Your task to perform on an android device: Search for "sony triple a" on target.com, select the first entry, and add it to the cart. Image 0: 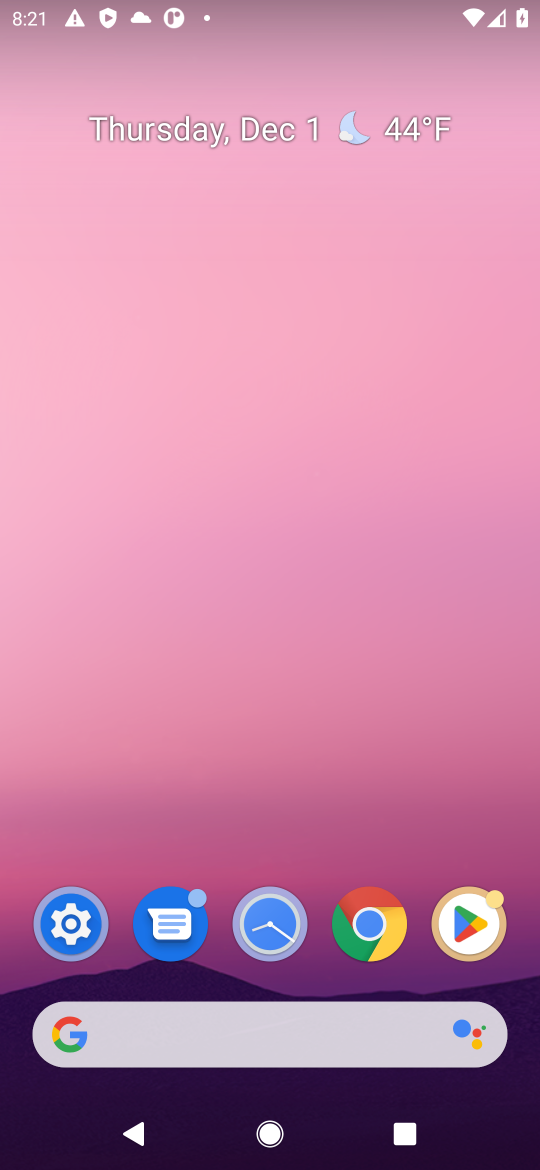
Step 0: click (339, 1019)
Your task to perform on an android device: Search for "sony triple a" on target.com, select the first entry, and add it to the cart. Image 1: 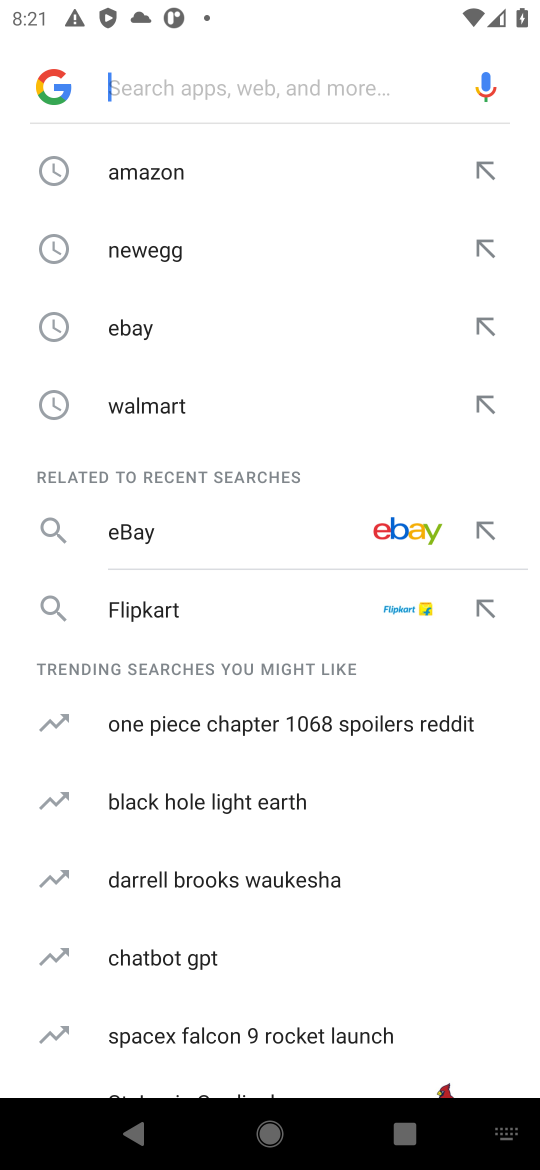
Step 1: type "target"
Your task to perform on an android device: Search for "sony triple a" on target.com, select the first entry, and add it to the cart. Image 2: 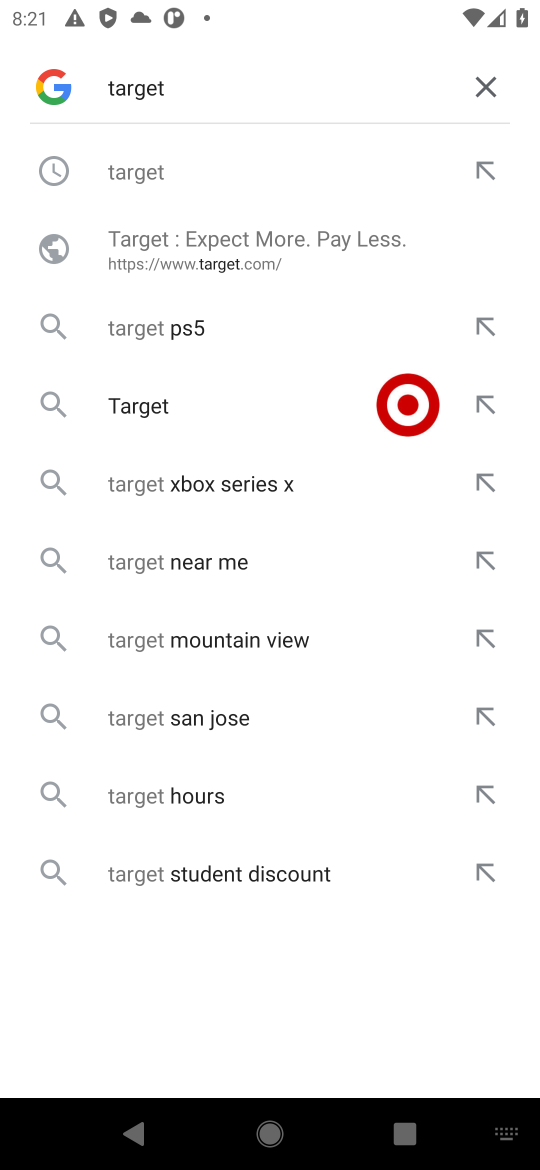
Step 2: click (252, 390)
Your task to perform on an android device: Search for "sony triple a" on target.com, select the first entry, and add it to the cart. Image 3: 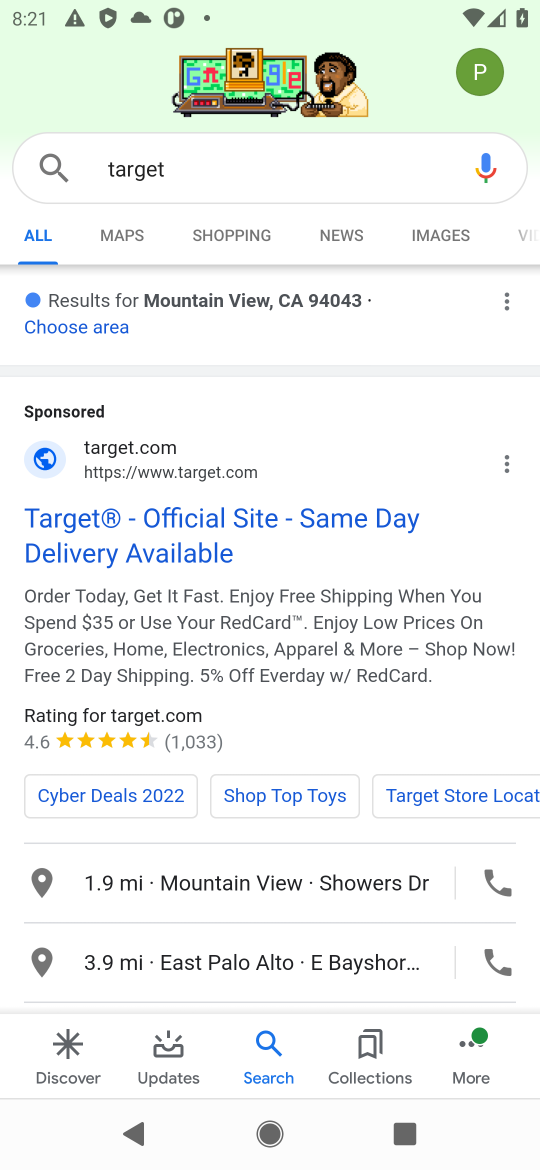
Step 3: click (141, 553)
Your task to perform on an android device: Search for "sony triple a" on target.com, select the first entry, and add it to the cart. Image 4: 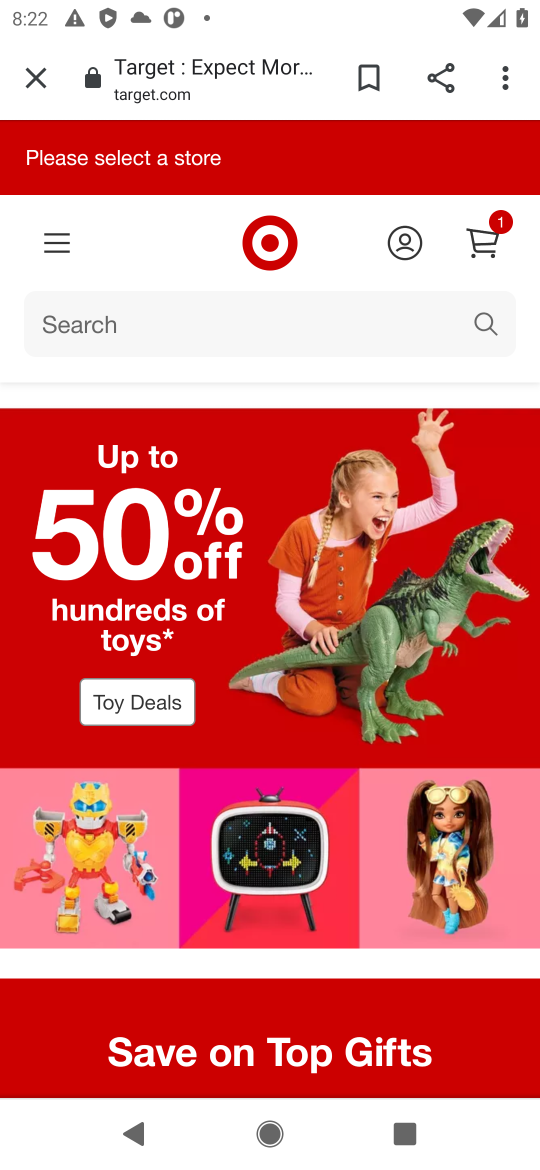
Step 4: click (212, 293)
Your task to perform on an android device: Search for "sony triple a" on target.com, select the first entry, and add it to the cart. Image 5: 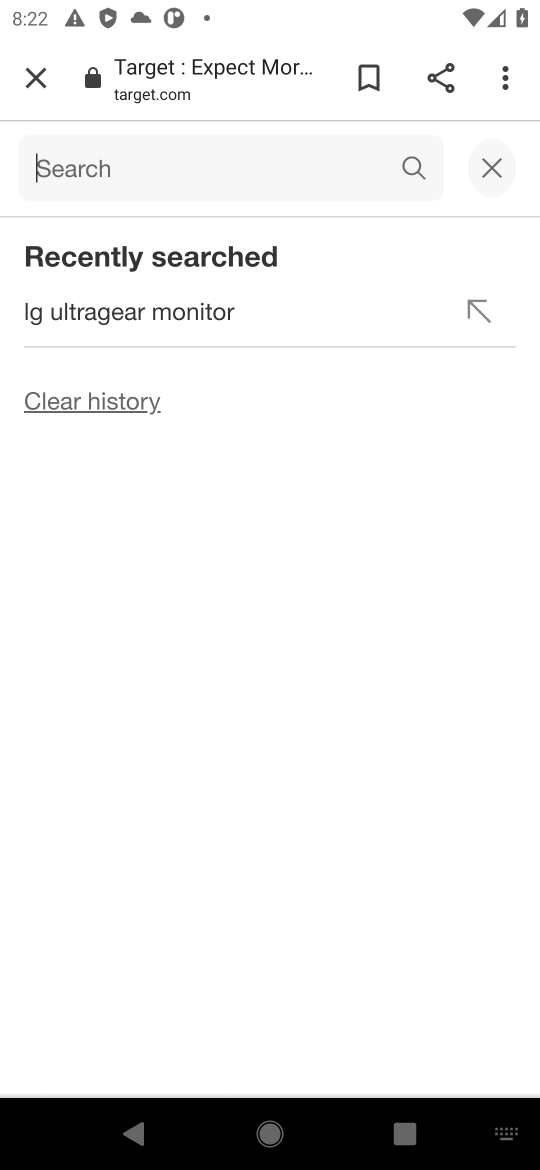
Step 5: type "sony tiple a"
Your task to perform on an android device: Search for "sony triple a" on target.com, select the first entry, and add it to the cart. Image 6: 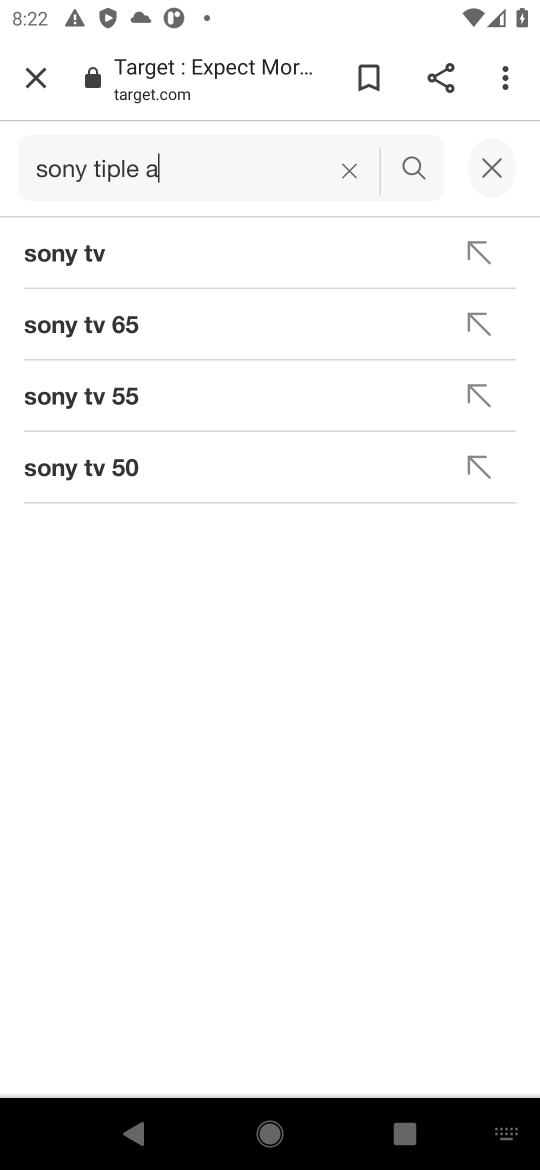
Step 6: click (419, 172)
Your task to perform on an android device: Search for "sony triple a" on target.com, select the first entry, and add it to the cart. Image 7: 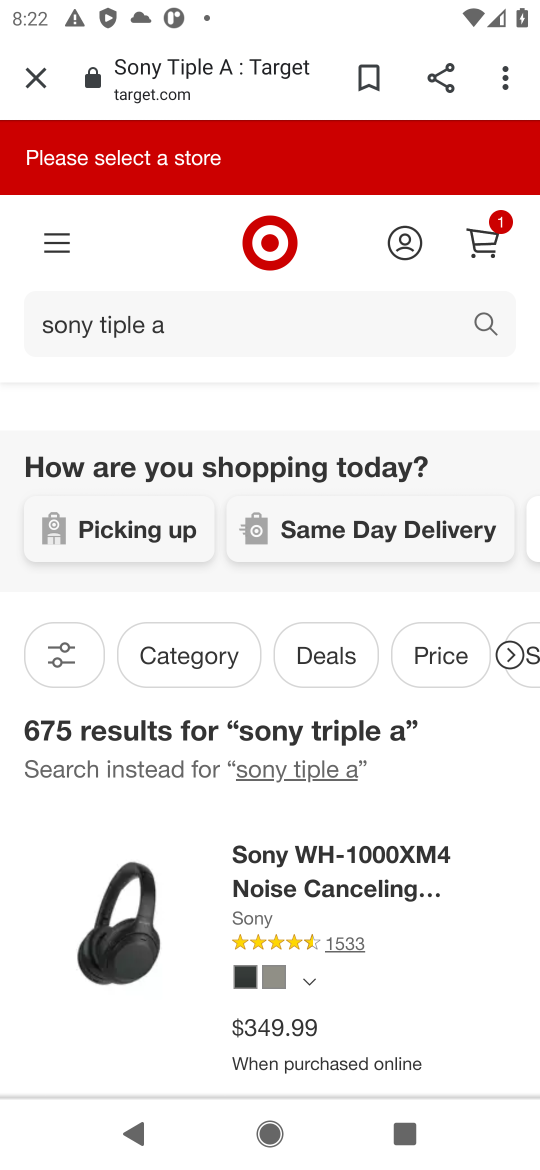
Step 7: drag from (272, 761) to (231, 360)
Your task to perform on an android device: Search for "sony triple a" on target.com, select the first entry, and add it to the cart. Image 8: 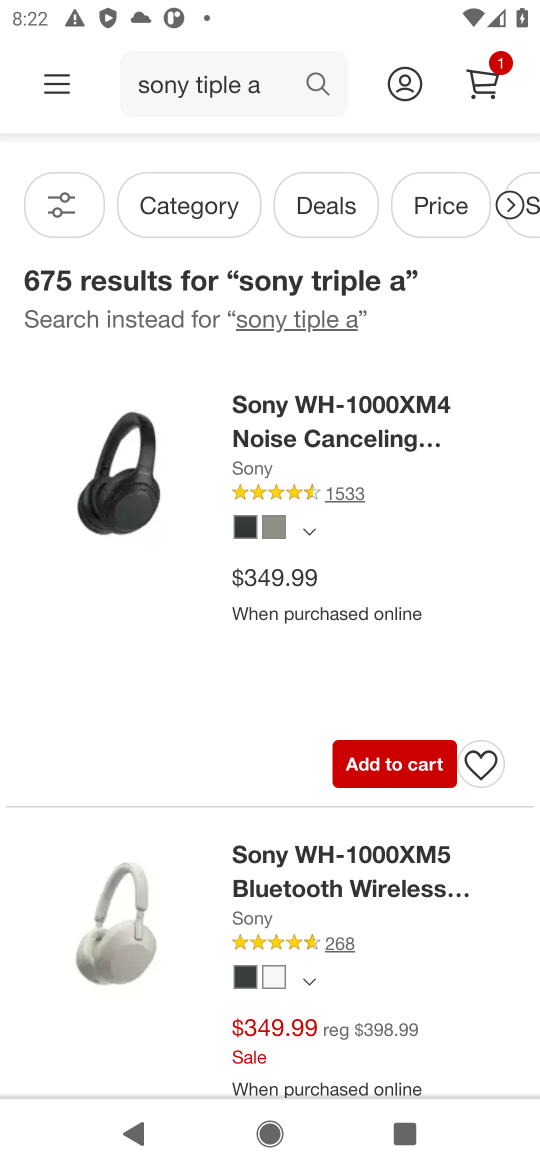
Step 8: click (371, 759)
Your task to perform on an android device: Search for "sony triple a" on target.com, select the first entry, and add it to the cart. Image 9: 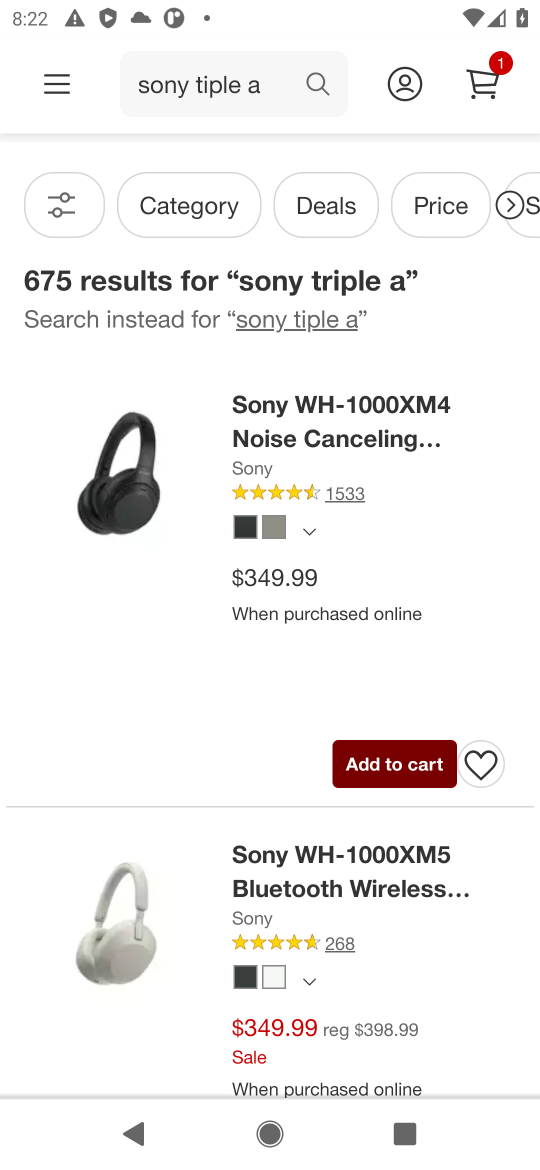
Step 9: task complete